Your task to perform on an android device: open chrome privacy settings Image 0: 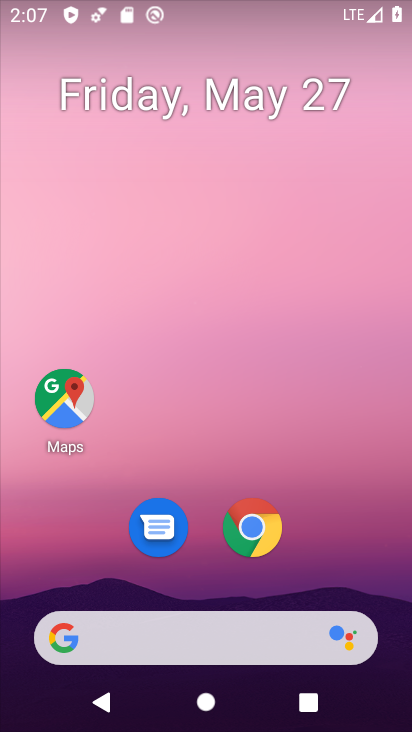
Step 0: click (243, 532)
Your task to perform on an android device: open chrome privacy settings Image 1: 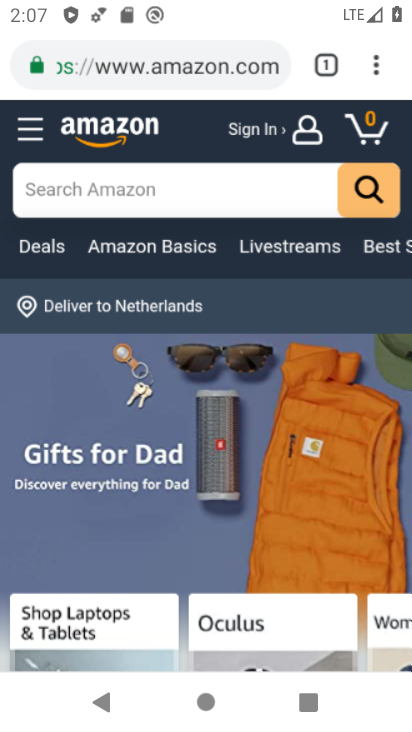
Step 1: click (387, 64)
Your task to perform on an android device: open chrome privacy settings Image 2: 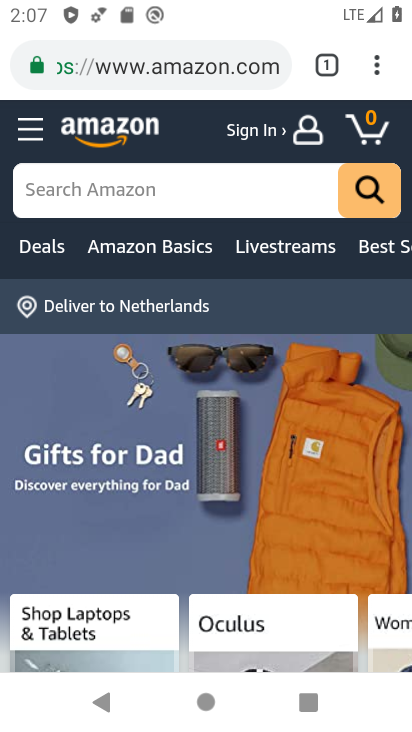
Step 2: click (379, 65)
Your task to perform on an android device: open chrome privacy settings Image 3: 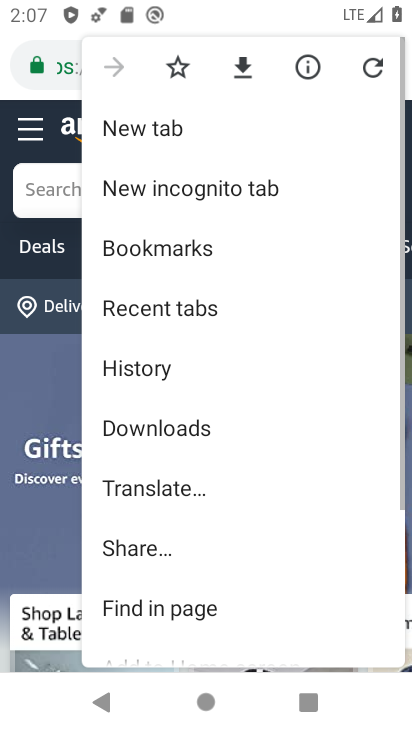
Step 3: drag from (289, 576) to (361, 133)
Your task to perform on an android device: open chrome privacy settings Image 4: 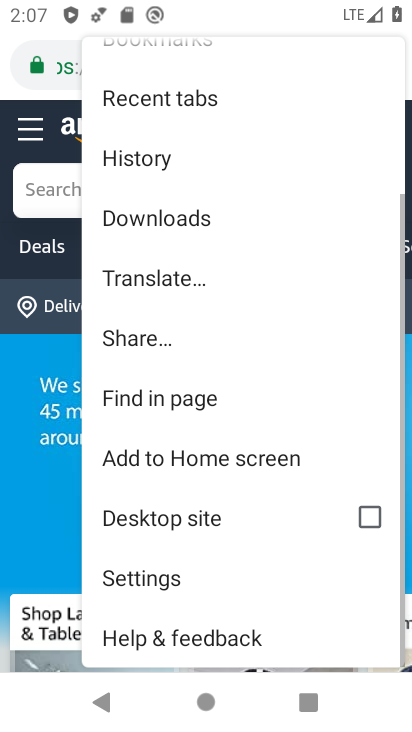
Step 4: click (194, 584)
Your task to perform on an android device: open chrome privacy settings Image 5: 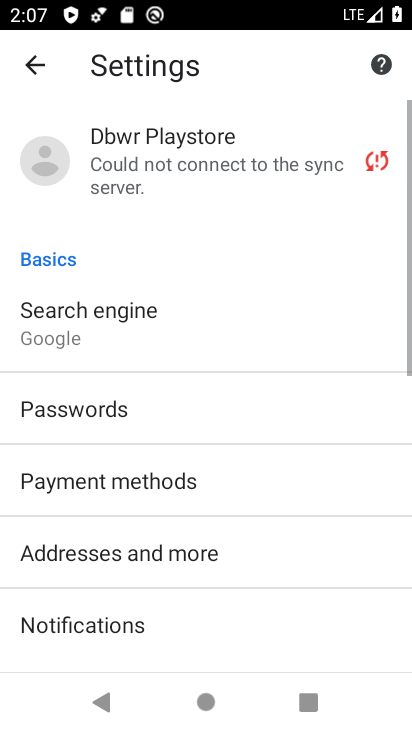
Step 5: drag from (149, 591) to (344, 23)
Your task to perform on an android device: open chrome privacy settings Image 6: 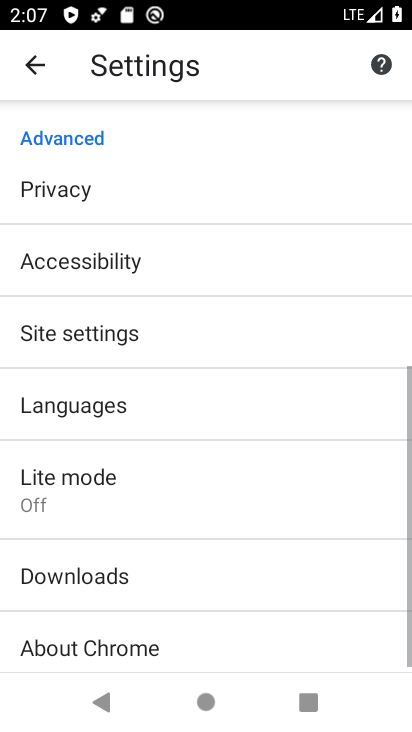
Step 6: drag from (240, 602) to (322, 101)
Your task to perform on an android device: open chrome privacy settings Image 7: 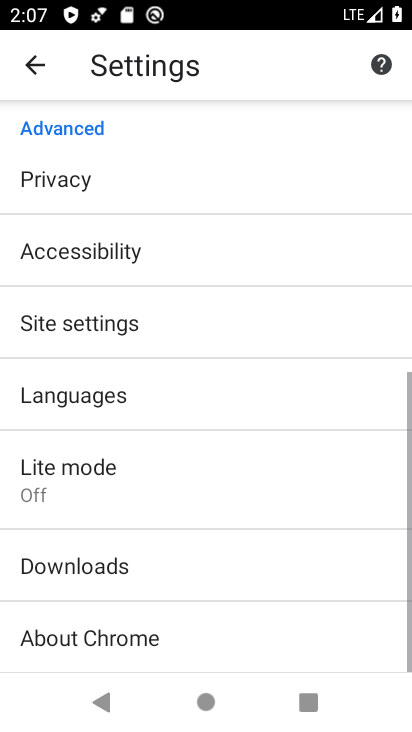
Step 7: click (222, 171)
Your task to perform on an android device: open chrome privacy settings Image 8: 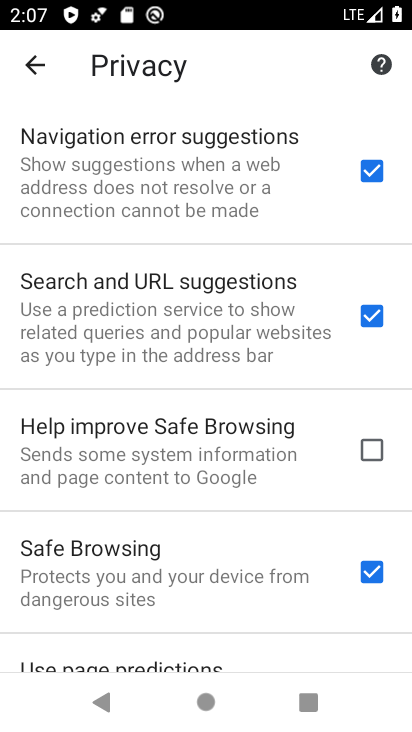
Step 8: task complete